Your task to perform on an android device: turn off data saver in the chrome app Image 0: 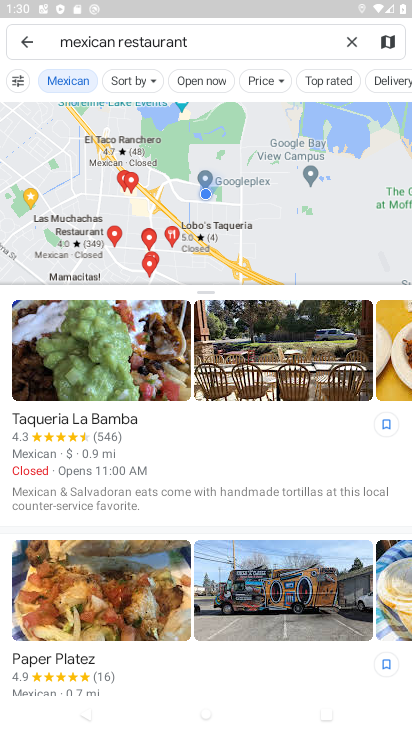
Step 0: press back button
Your task to perform on an android device: turn off data saver in the chrome app Image 1: 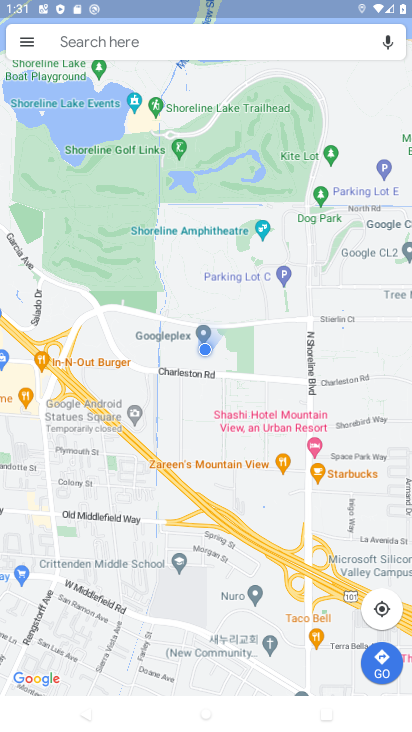
Step 1: press back button
Your task to perform on an android device: turn off data saver in the chrome app Image 2: 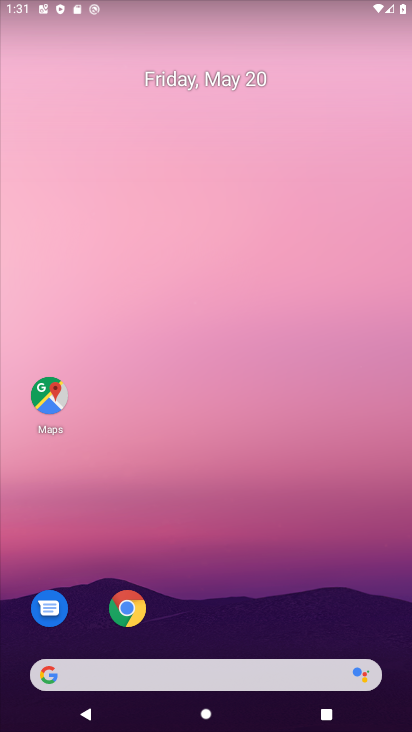
Step 2: click (125, 606)
Your task to perform on an android device: turn off data saver in the chrome app Image 3: 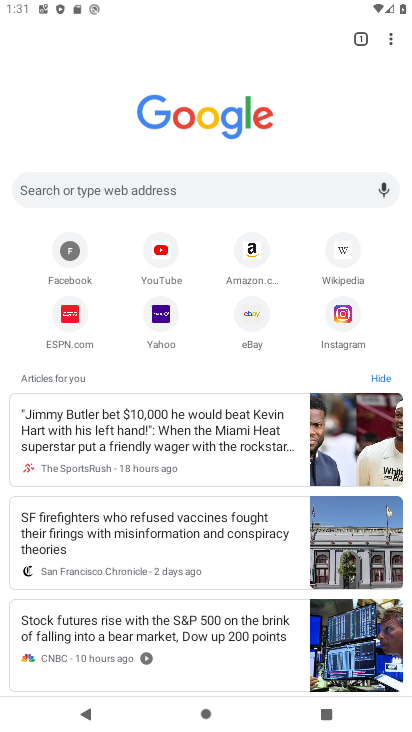
Step 3: drag from (388, 36) to (247, 329)
Your task to perform on an android device: turn off data saver in the chrome app Image 4: 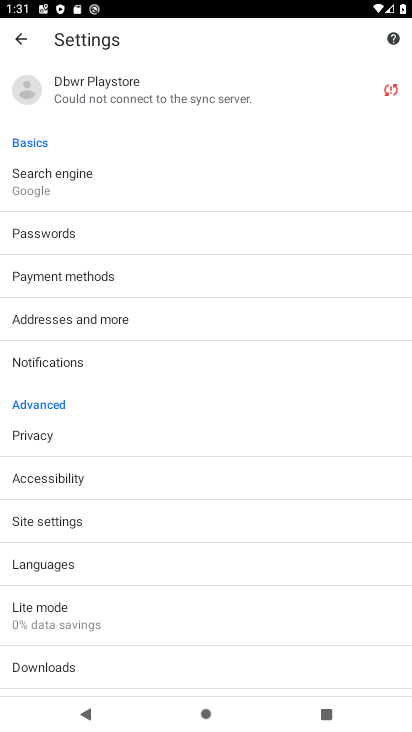
Step 4: click (42, 610)
Your task to perform on an android device: turn off data saver in the chrome app Image 5: 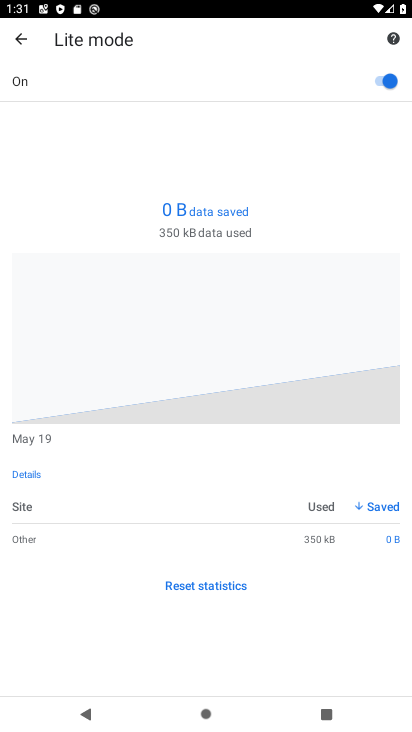
Step 5: click (382, 79)
Your task to perform on an android device: turn off data saver in the chrome app Image 6: 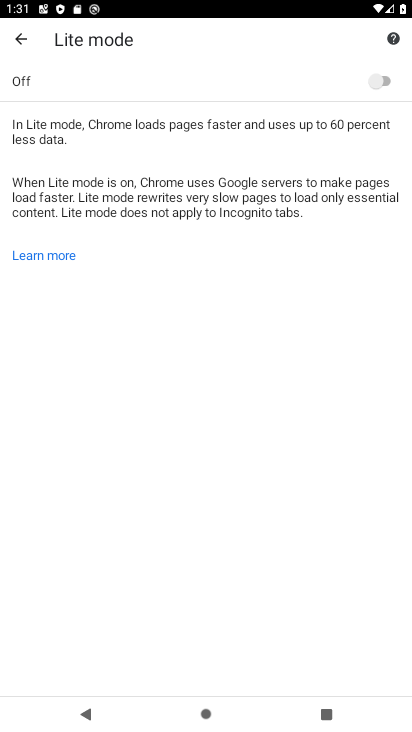
Step 6: task complete